Your task to perform on an android device: Go to Android settings Image 0: 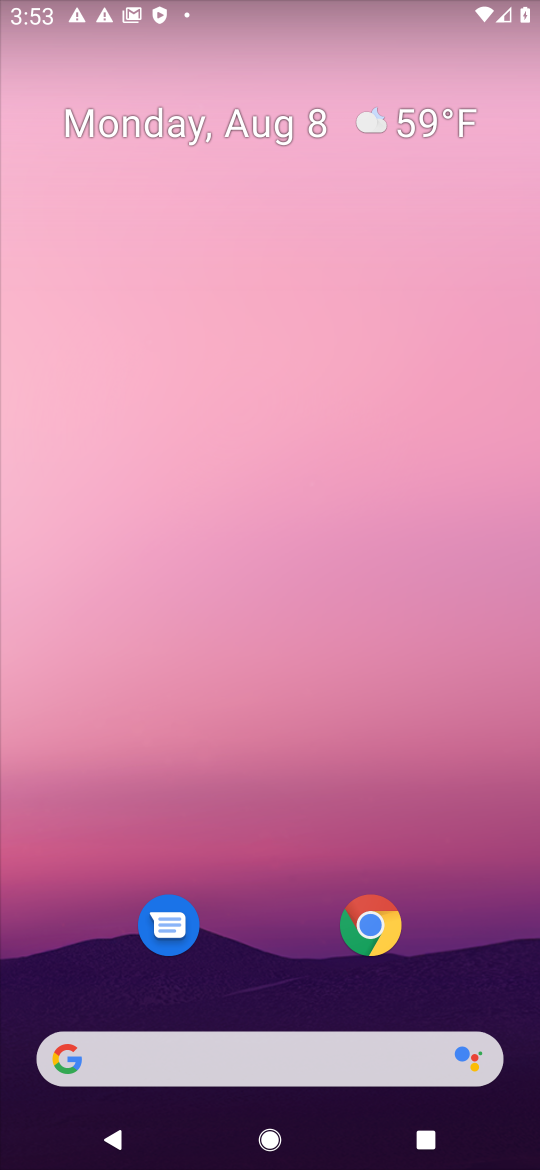
Step 0: drag from (288, 974) to (296, 202)
Your task to perform on an android device: Go to Android settings Image 1: 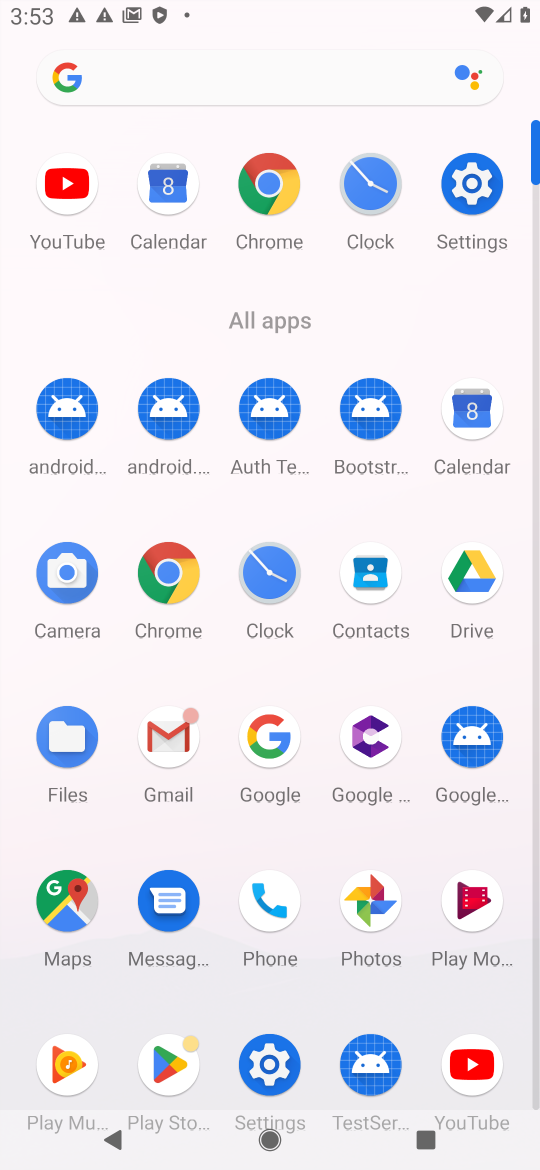
Step 1: click (469, 191)
Your task to perform on an android device: Go to Android settings Image 2: 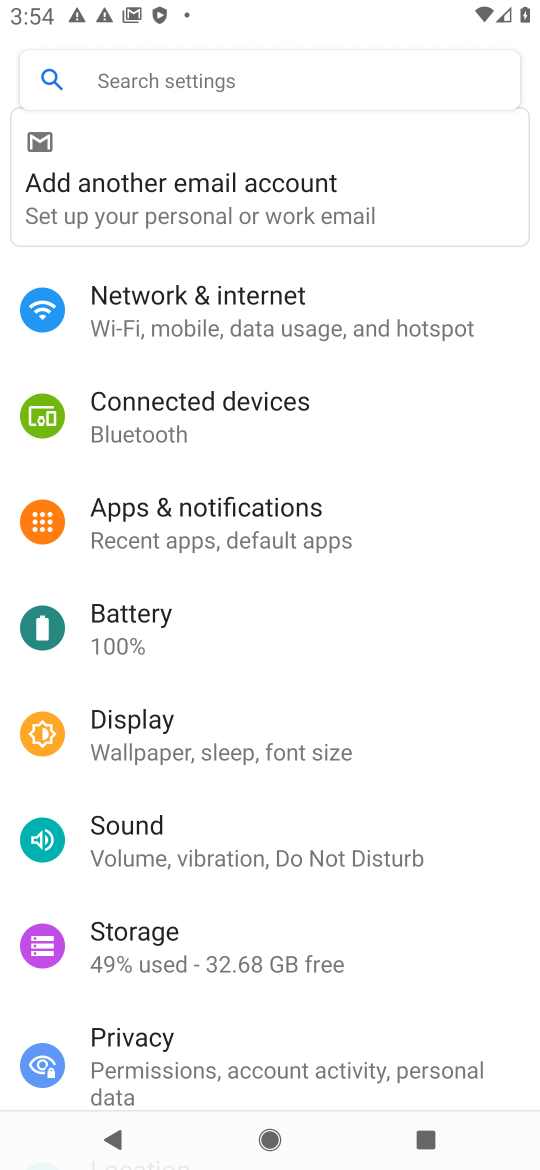
Step 2: task complete